Your task to perform on an android device: Show me popular videos on Youtube Image 0: 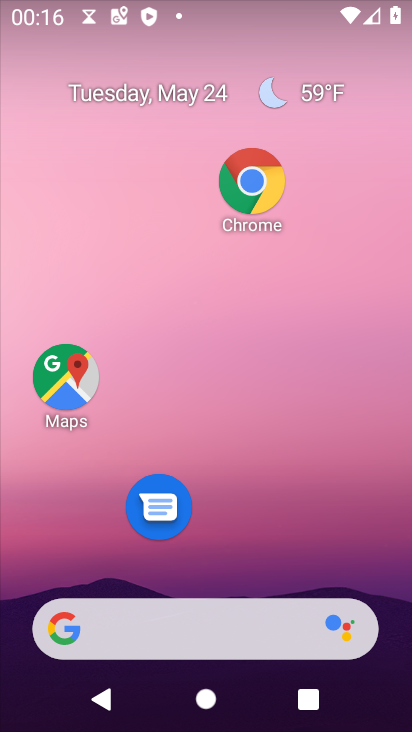
Step 0: drag from (257, 542) to (261, 329)
Your task to perform on an android device: Show me popular videos on Youtube Image 1: 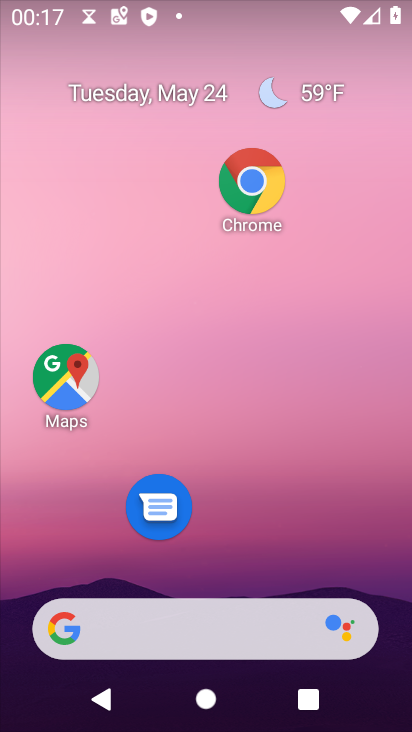
Step 1: drag from (222, 548) to (259, 307)
Your task to perform on an android device: Show me popular videos on Youtube Image 2: 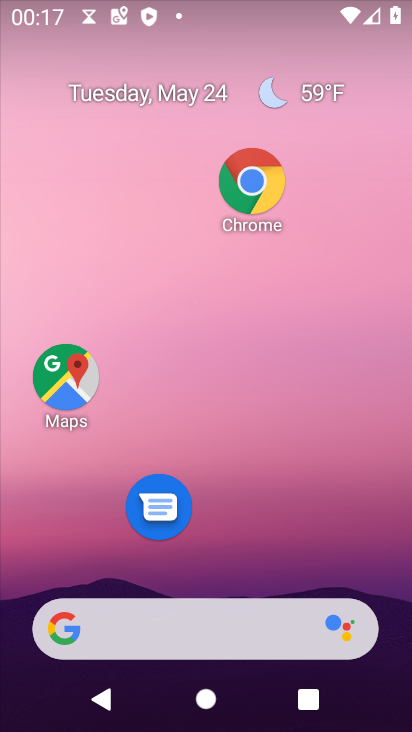
Step 2: drag from (304, 558) to (284, 276)
Your task to perform on an android device: Show me popular videos on Youtube Image 3: 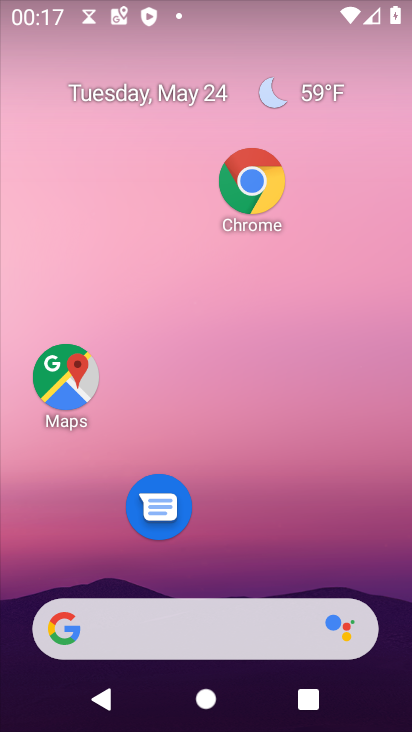
Step 3: drag from (310, 585) to (319, 152)
Your task to perform on an android device: Show me popular videos on Youtube Image 4: 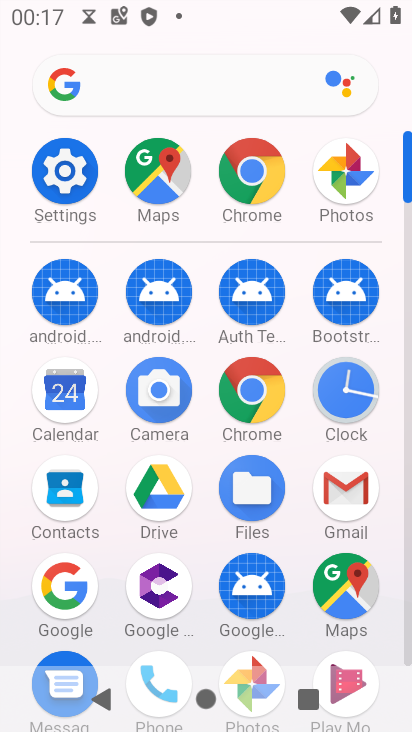
Step 4: drag from (333, 607) to (312, 186)
Your task to perform on an android device: Show me popular videos on Youtube Image 5: 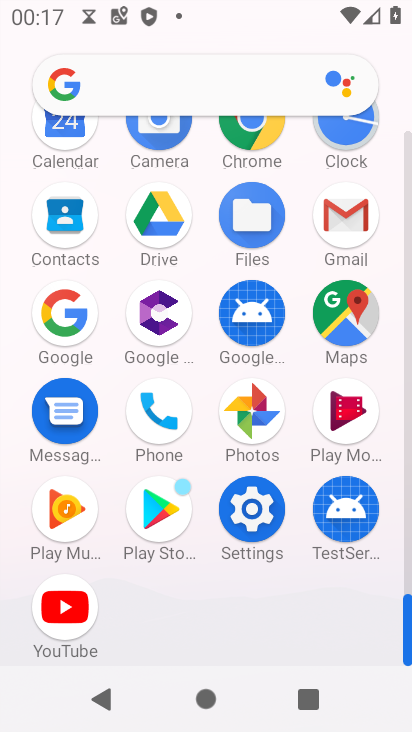
Step 5: click (76, 612)
Your task to perform on an android device: Show me popular videos on Youtube Image 6: 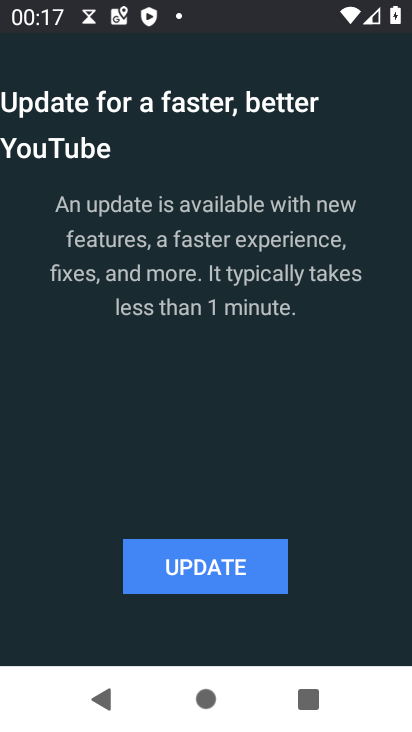
Step 6: task complete